Your task to perform on an android device: Open Chrome and go to the settings page Image 0: 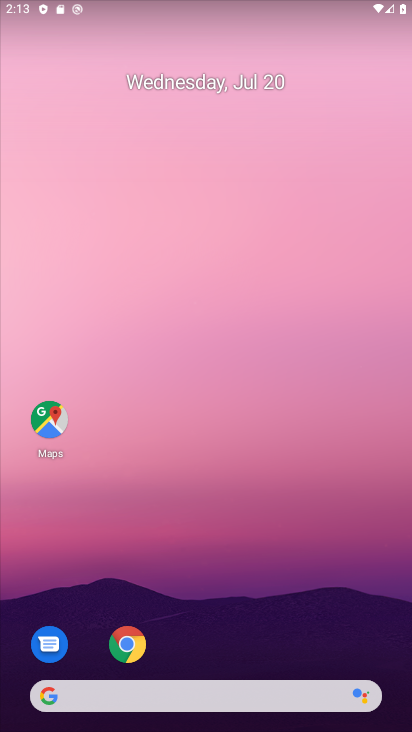
Step 0: task complete